Your task to perform on an android device: What's on my calendar tomorrow? Image 0: 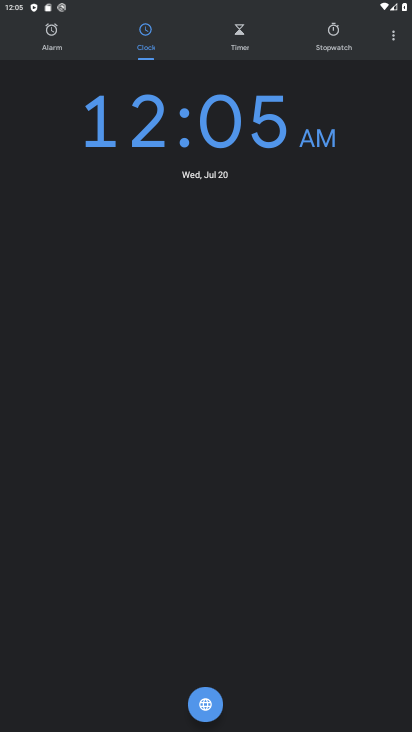
Step 0: press home button
Your task to perform on an android device: What's on my calendar tomorrow? Image 1: 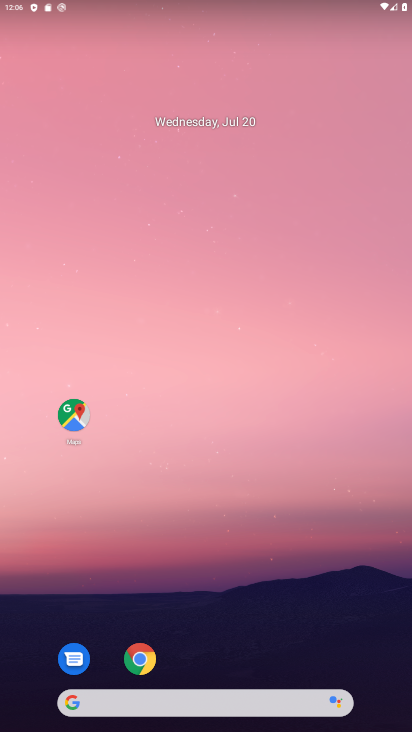
Step 1: drag from (326, 636) to (227, 5)
Your task to perform on an android device: What's on my calendar tomorrow? Image 2: 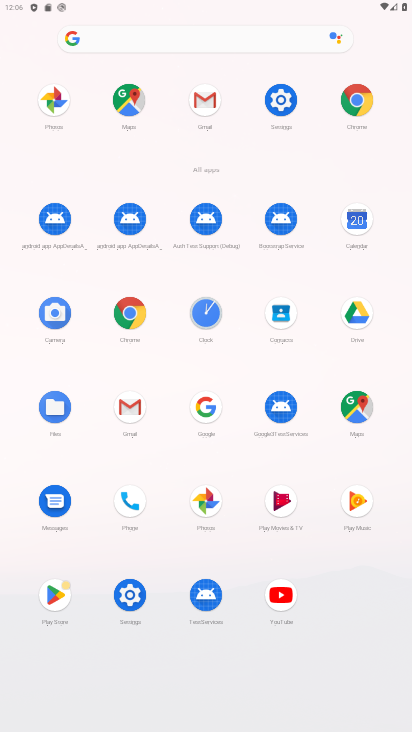
Step 2: click (351, 224)
Your task to perform on an android device: What's on my calendar tomorrow? Image 3: 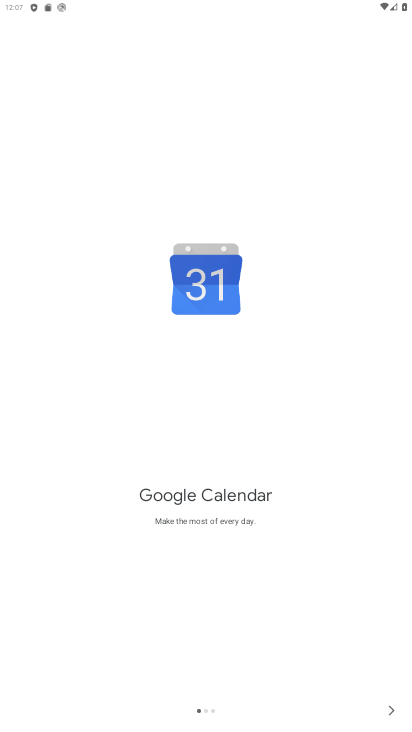
Step 3: click (390, 710)
Your task to perform on an android device: What's on my calendar tomorrow? Image 4: 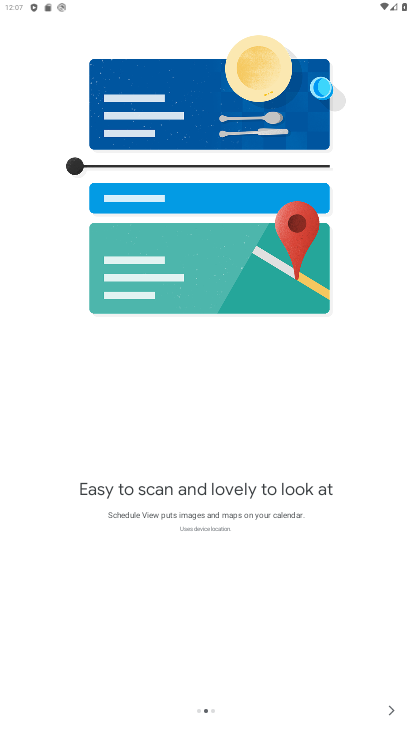
Step 4: click (390, 710)
Your task to perform on an android device: What's on my calendar tomorrow? Image 5: 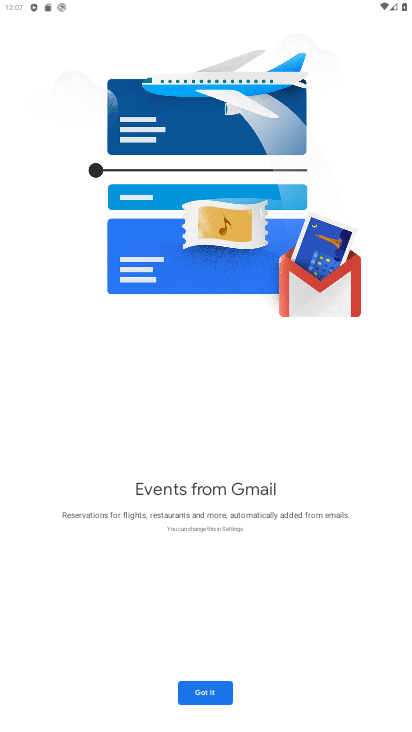
Step 5: click (217, 698)
Your task to perform on an android device: What's on my calendar tomorrow? Image 6: 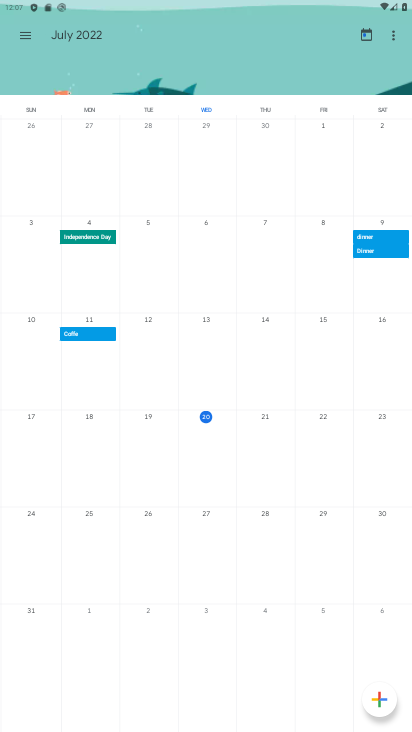
Step 6: task complete